Your task to perform on an android device: Open location settings Image 0: 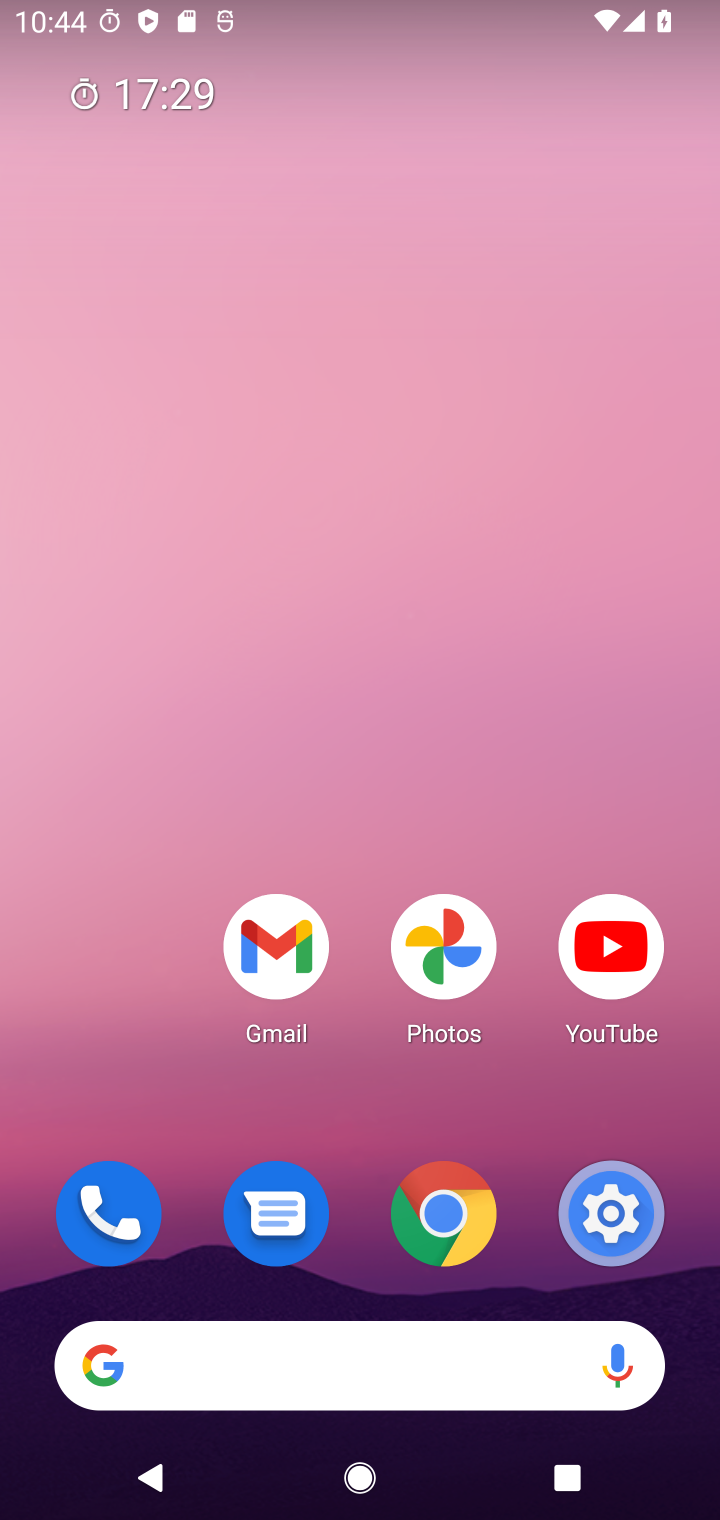
Step 0: drag from (358, 1058) to (304, 176)
Your task to perform on an android device: Open location settings Image 1: 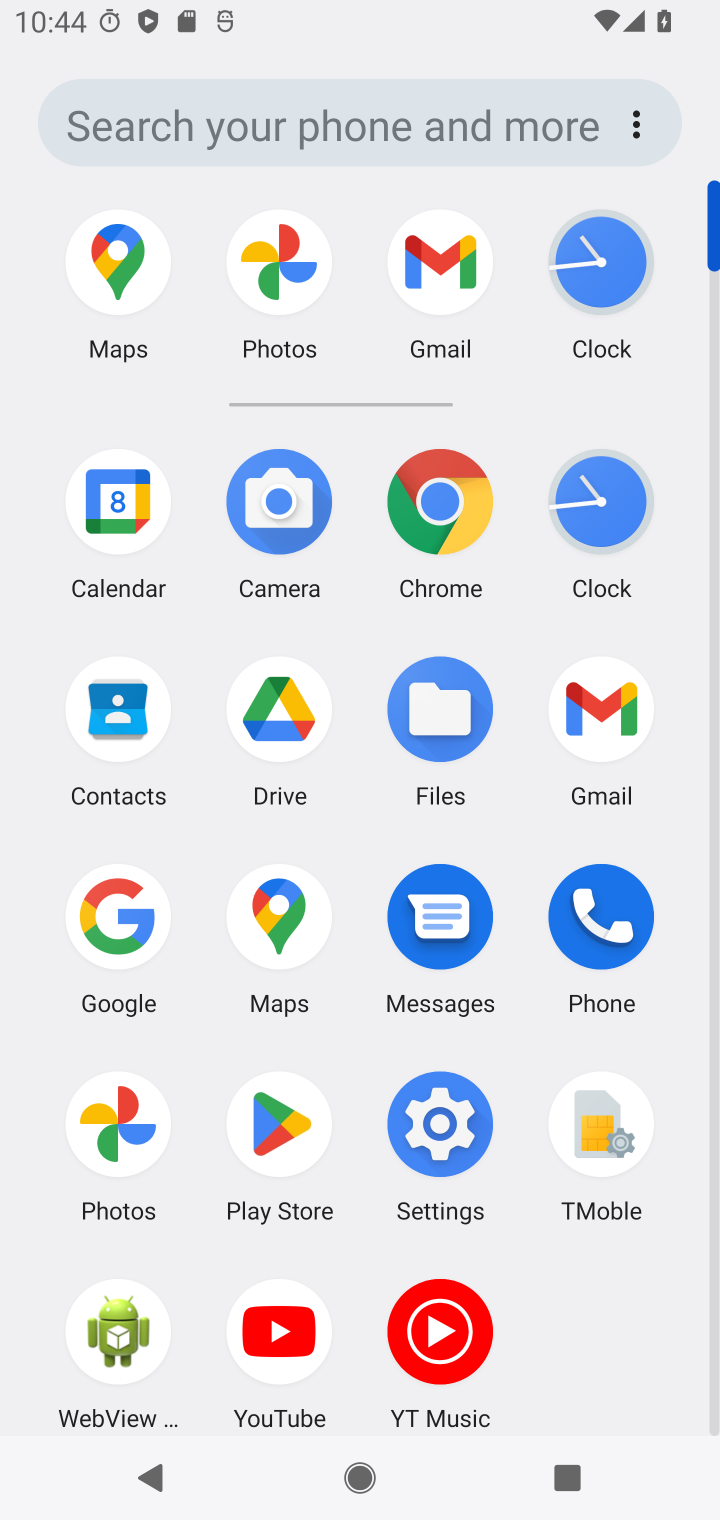
Step 1: click (443, 1148)
Your task to perform on an android device: Open location settings Image 2: 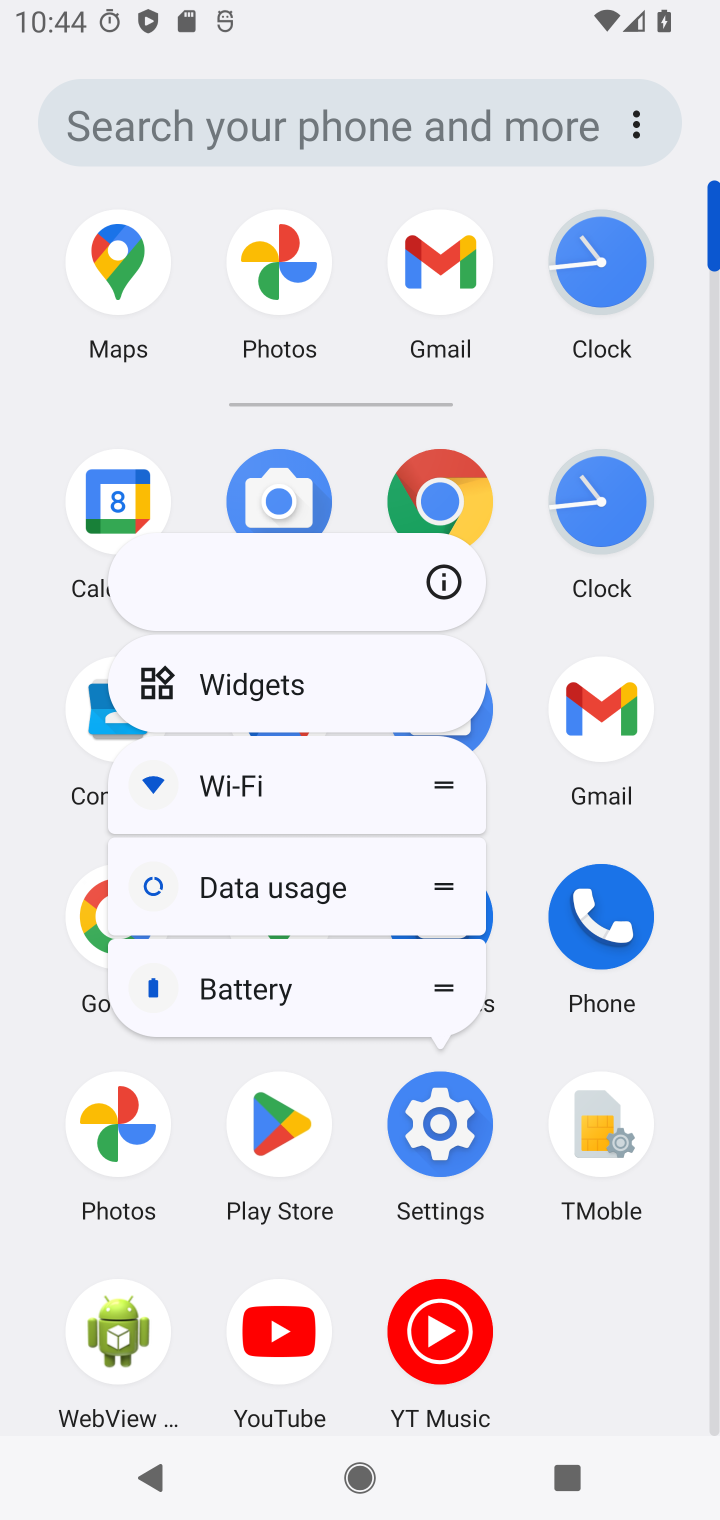
Step 2: click (458, 1143)
Your task to perform on an android device: Open location settings Image 3: 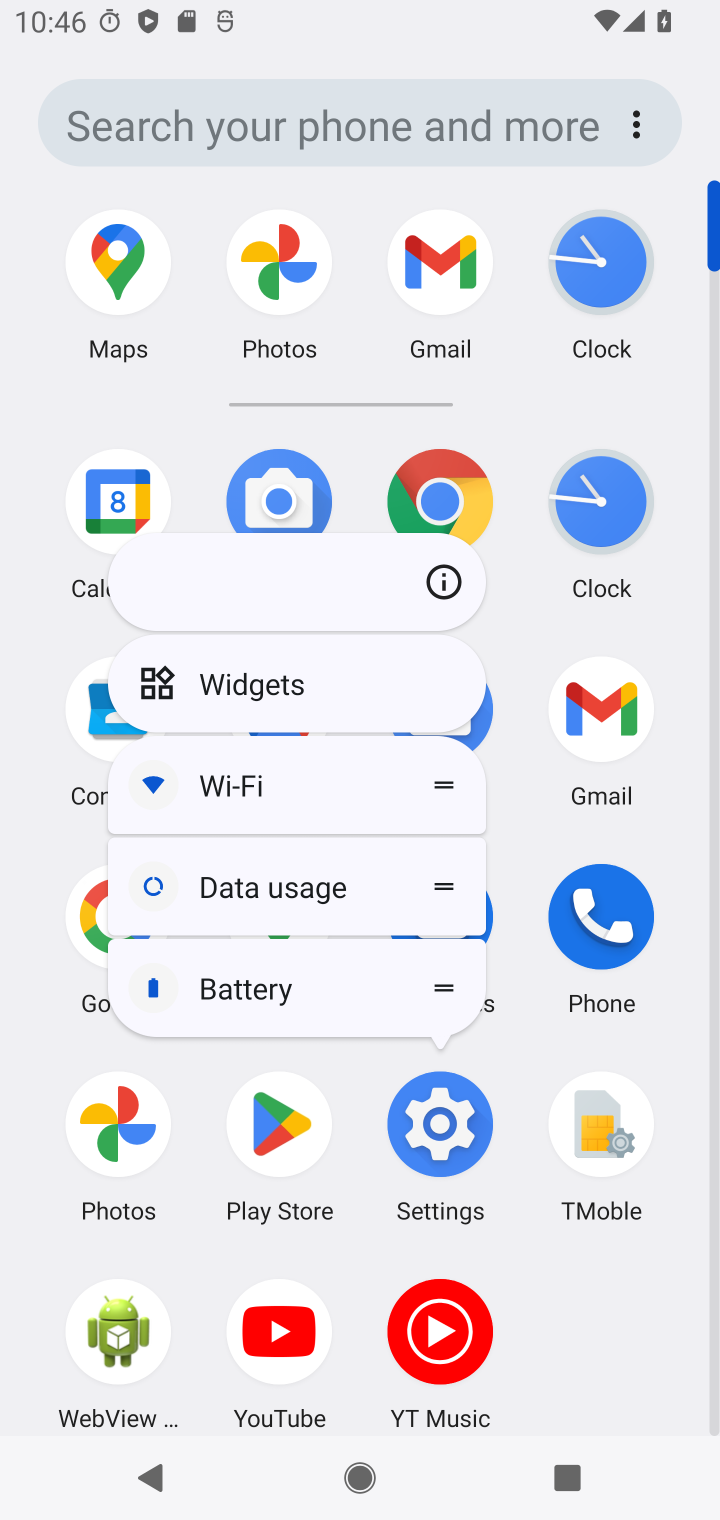
Step 3: click (463, 1145)
Your task to perform on an android device: Open location settings Image 4: 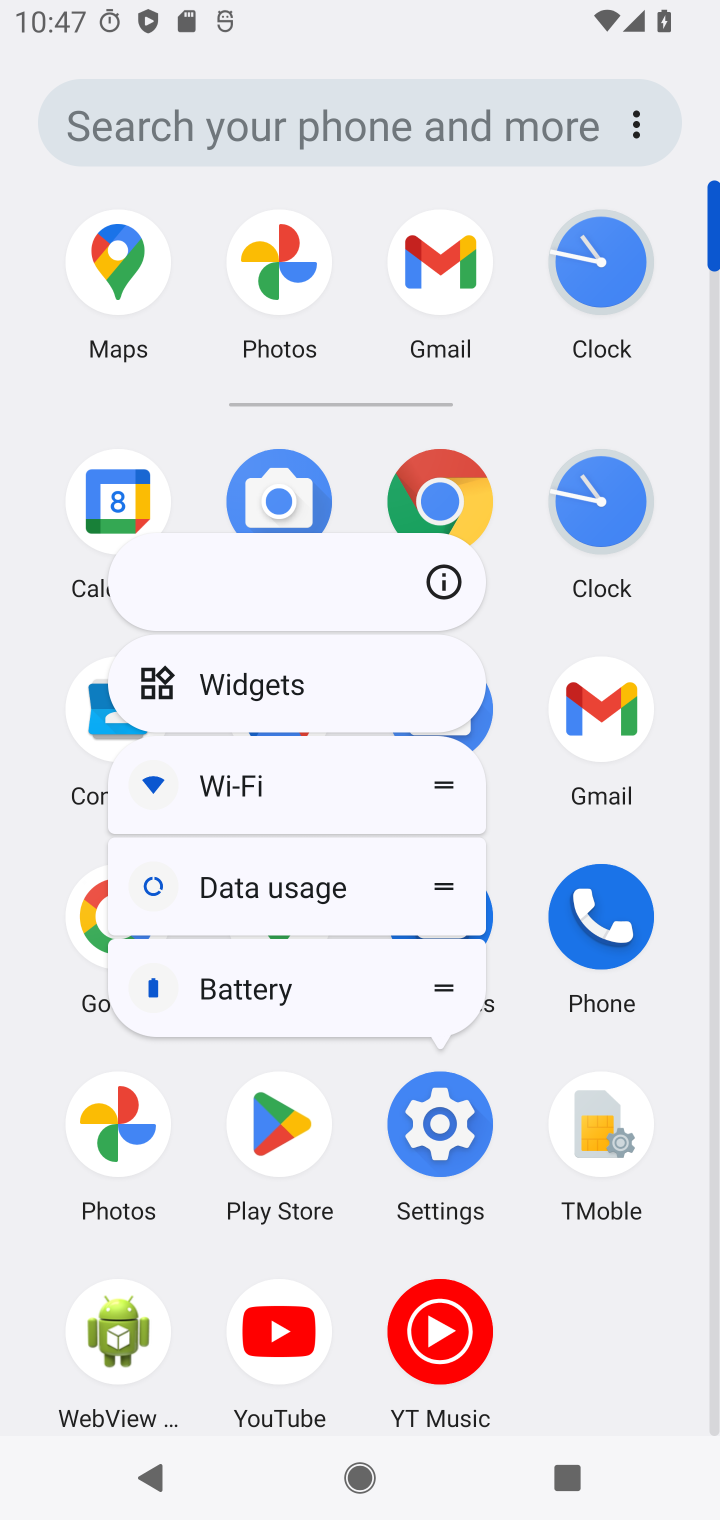
Step 4: click (465, 1094)
Your task to perform on an android device: Open location settings Image 5: 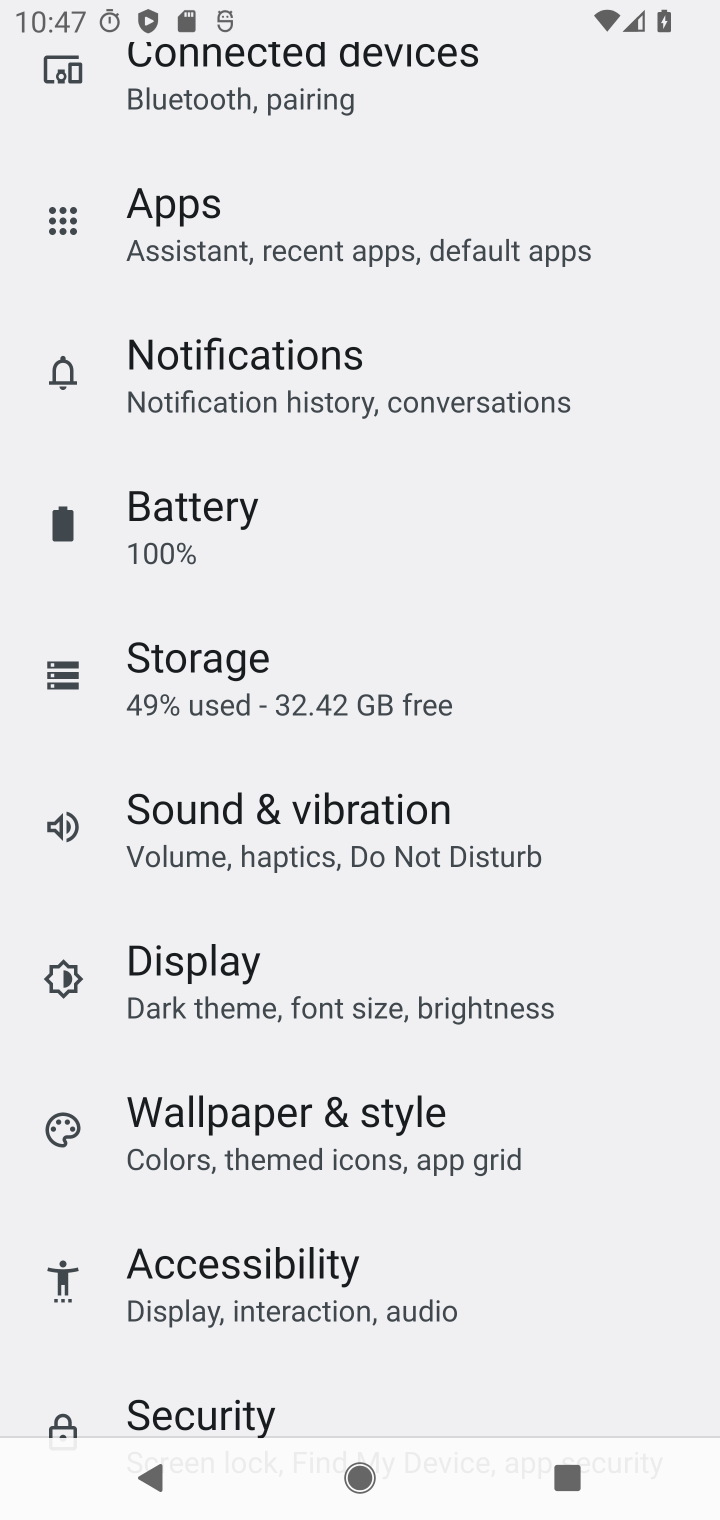
Step 5: drag from (350, 661) to (351, 0)
Your task to perform on an android device: Open location settings Image 6: 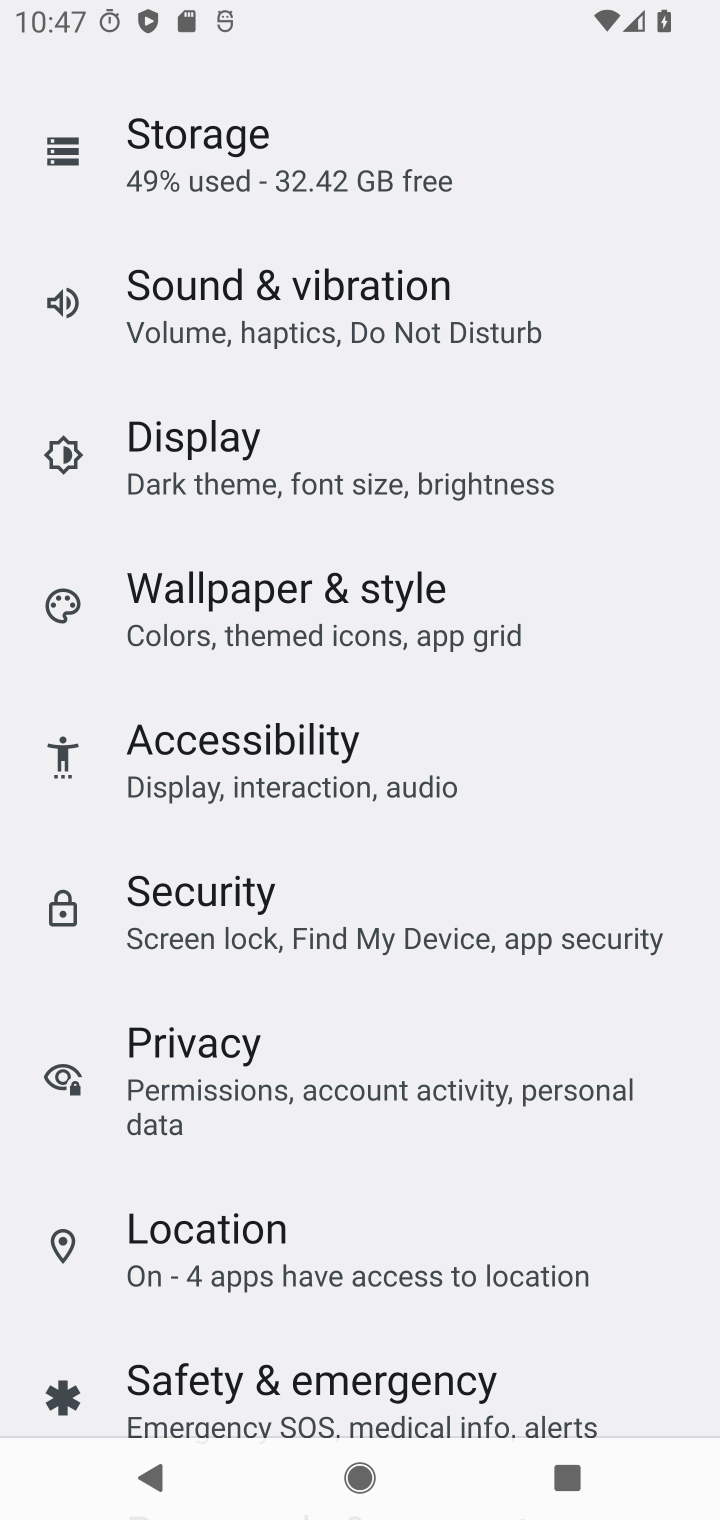
Step 6: click (324, 1251)
Your task to perform on an android device: Open location settings Image 7: 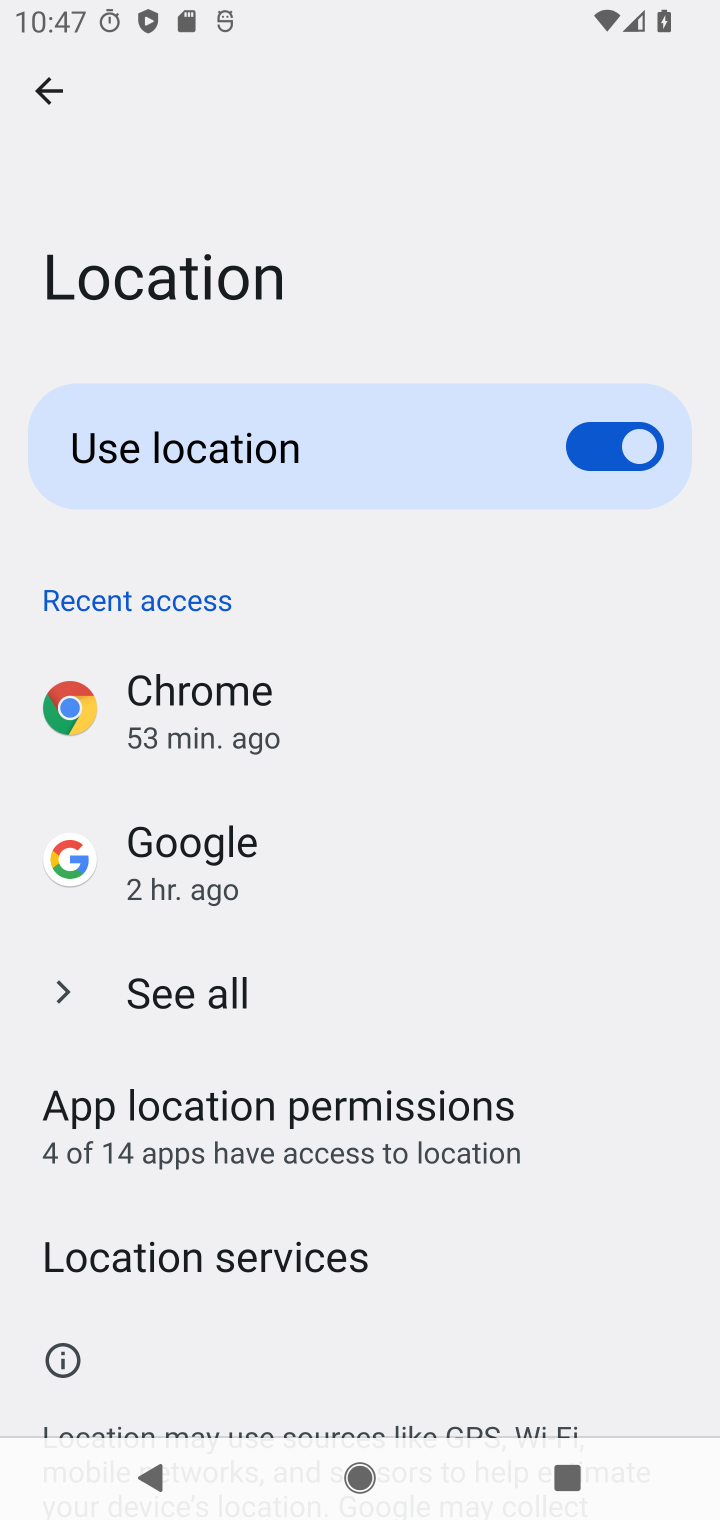
Step 7: task complete